Your task to perform on an android device: See recent photos Image 0: 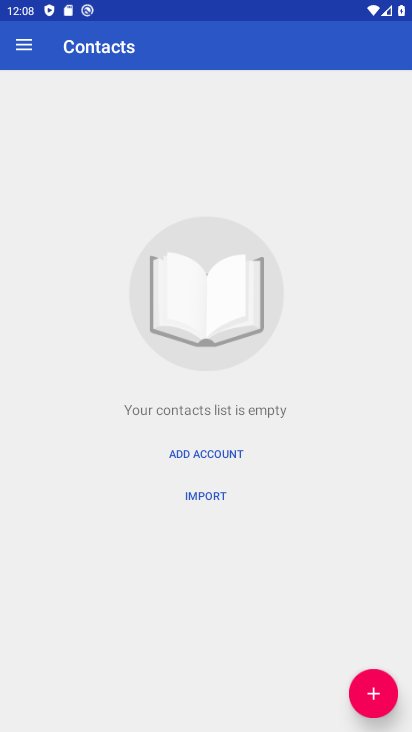
Step 0: press home button
Your task to perform on an android device: See recent photos Image 1: 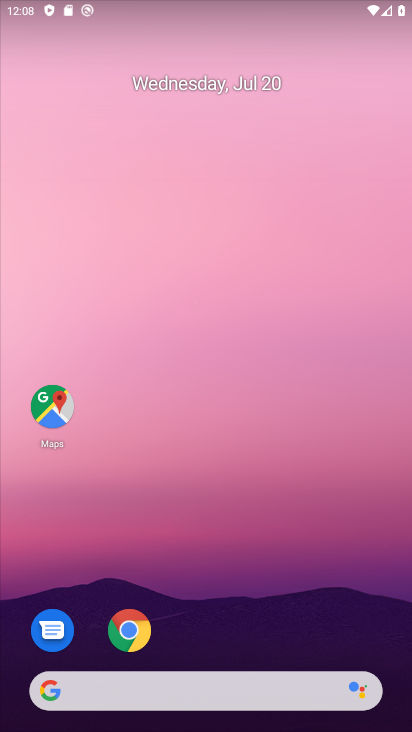
Step 1: drag from (233, 538) to (231, 4)
Your task to perform on an android device: See recent photos Image 2: 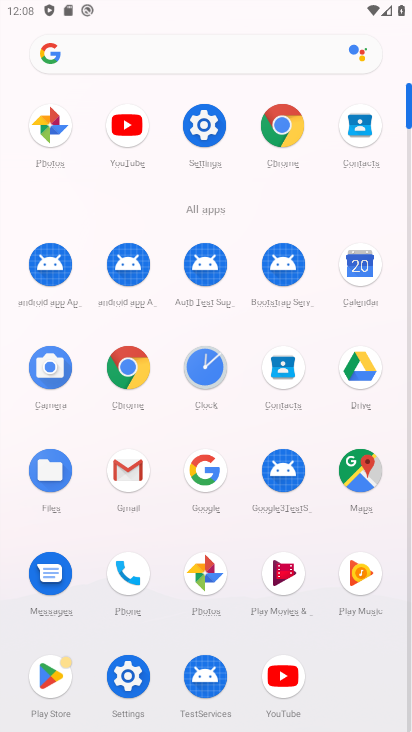
Step 2: click (188, 566)
Your task to perform on an android device: See recent photos Image 3: 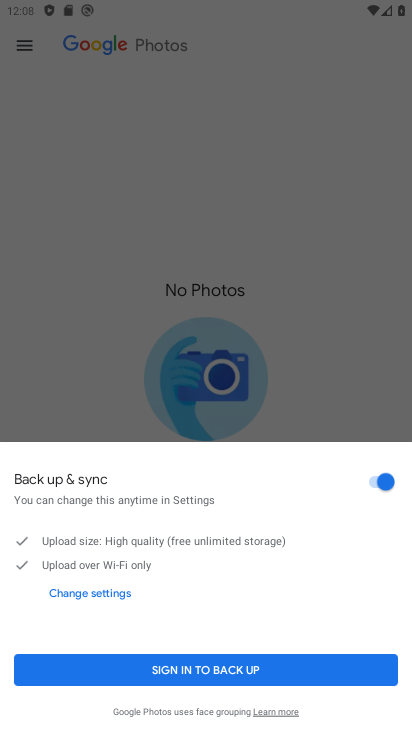
Step 3: click (203, 663)
Your task to perform on an android device: See recent photos Image 4: 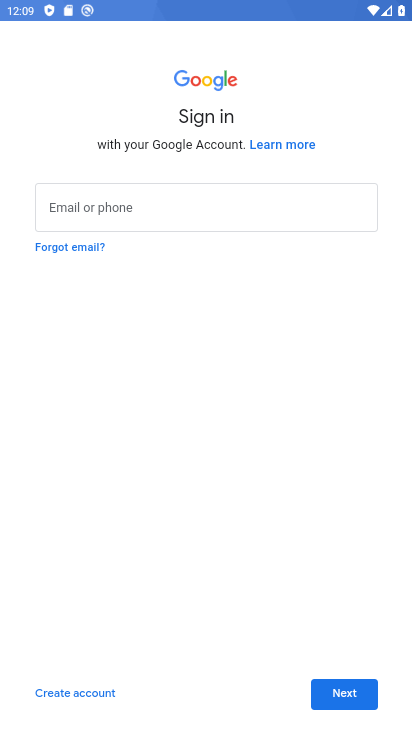
Step 4: task complete